Your task to perform on an android device: Go to ESPN.com Image 0: 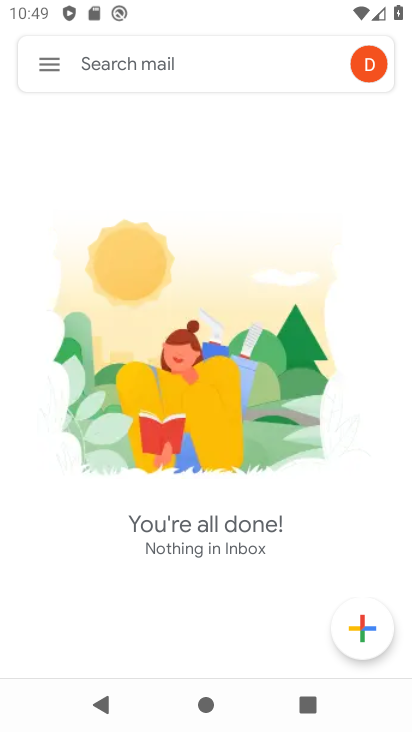
Step 0: press home button
Your task to perform on an android device: Go to ESPN.com Image 1: 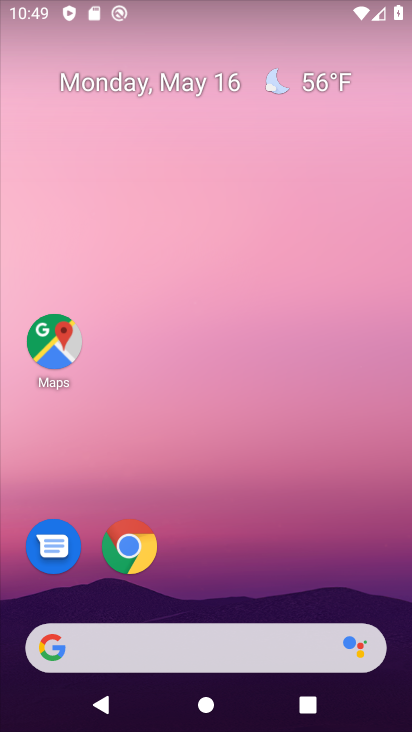
Step 1: click (93, 554)
Your task to perform on an android device: Go to ESPN.com Image 2: 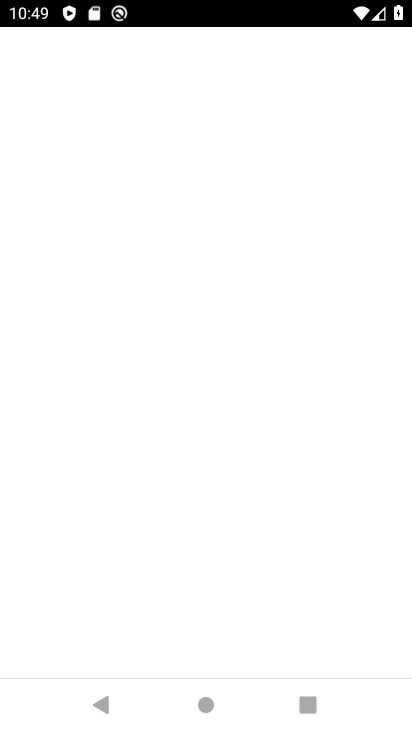
Step 2: click (123, 559)
Your task to perform on an android device: Go to ESPN.com Image 3: 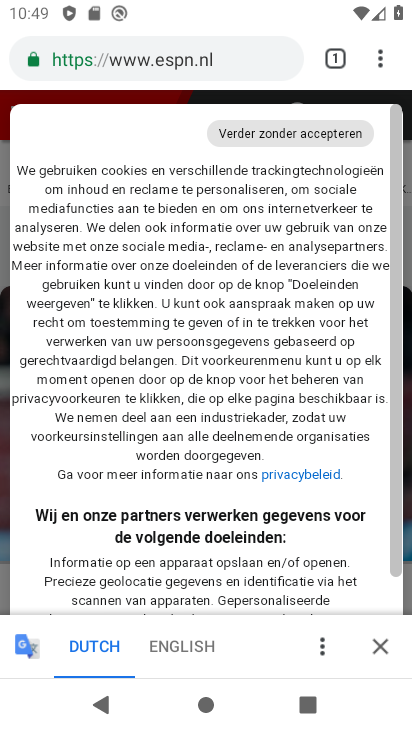
Step 3: task complete